Your task to perform on an android device: Open maps Image 0: 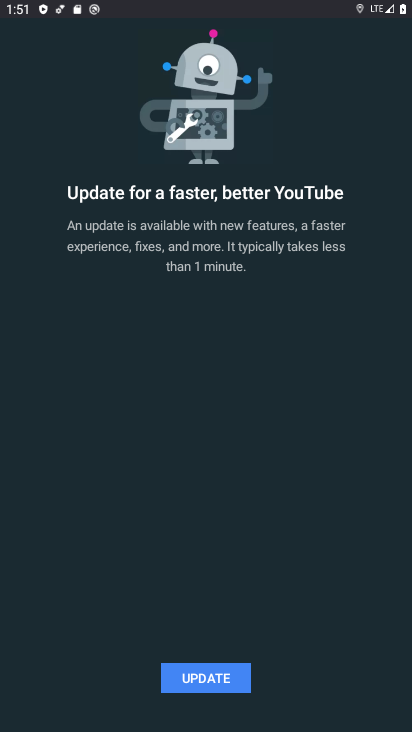
Step 0: press back button
Your task to perform on an android device: Open maps Image 1: 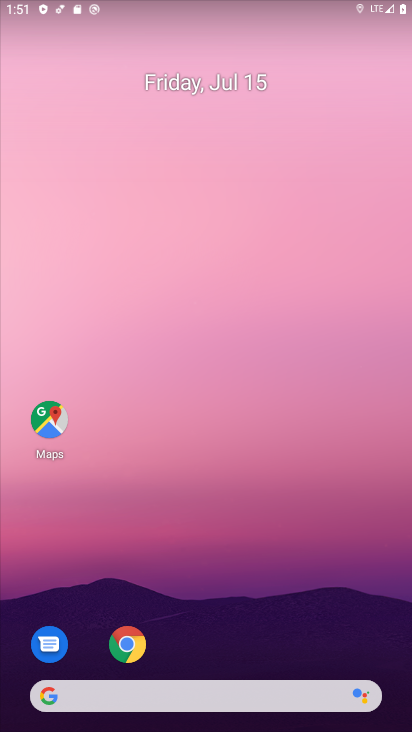
Step 1: drag from (351, 636) to (21, 168)
Your task to perform on an android device: Open maps Image 2: 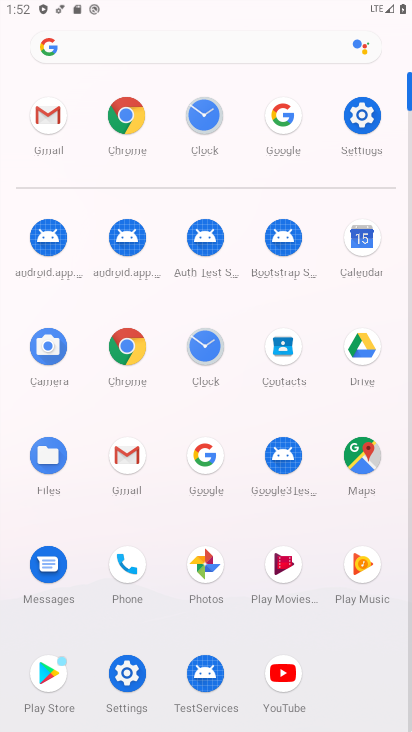
Step 2: click (355, 469)
Your task to perform on an android device: Open maps Image 3: 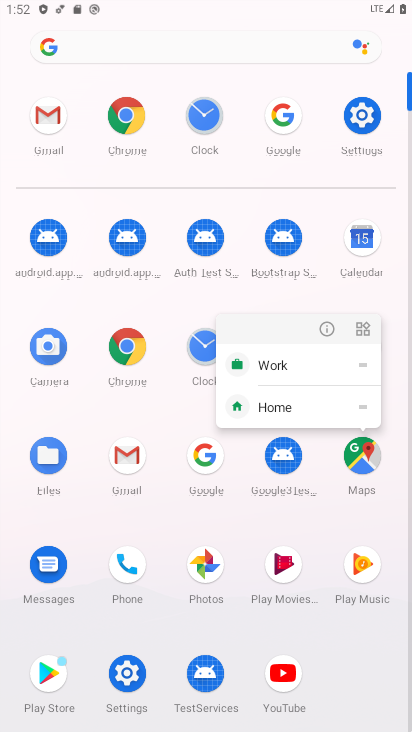
Step 3: click (355, 469)
Your task to perform on an android device: Open maps Image 4: 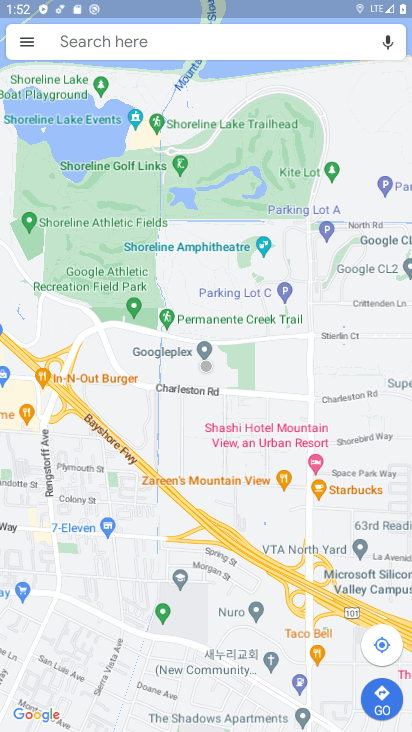
Step 4: task complete